Your task to perform on an android device: toggle javascript in the chrome app Image 0: 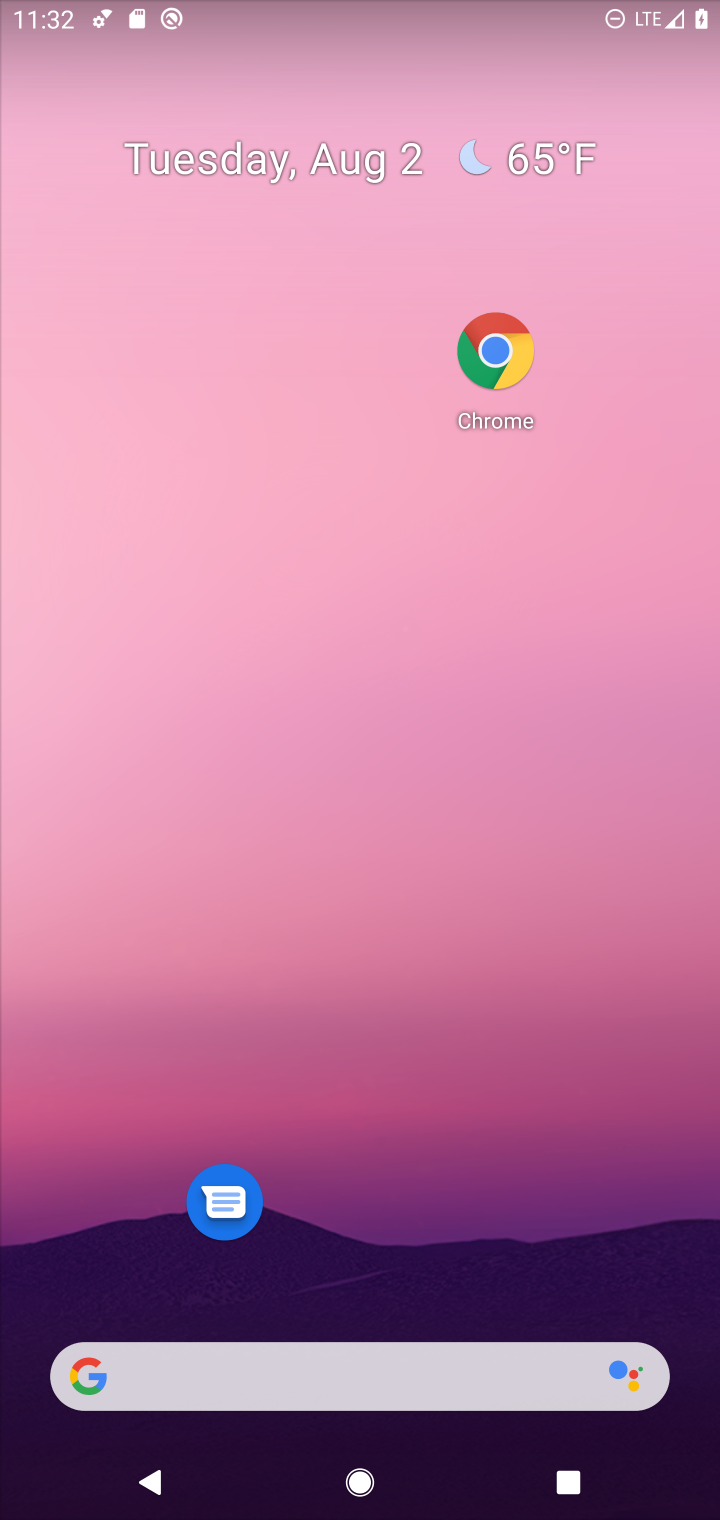
Step 0: click (488, 368)
Your task to perform on an android device: toggle javascript in the chrome app Image 1: 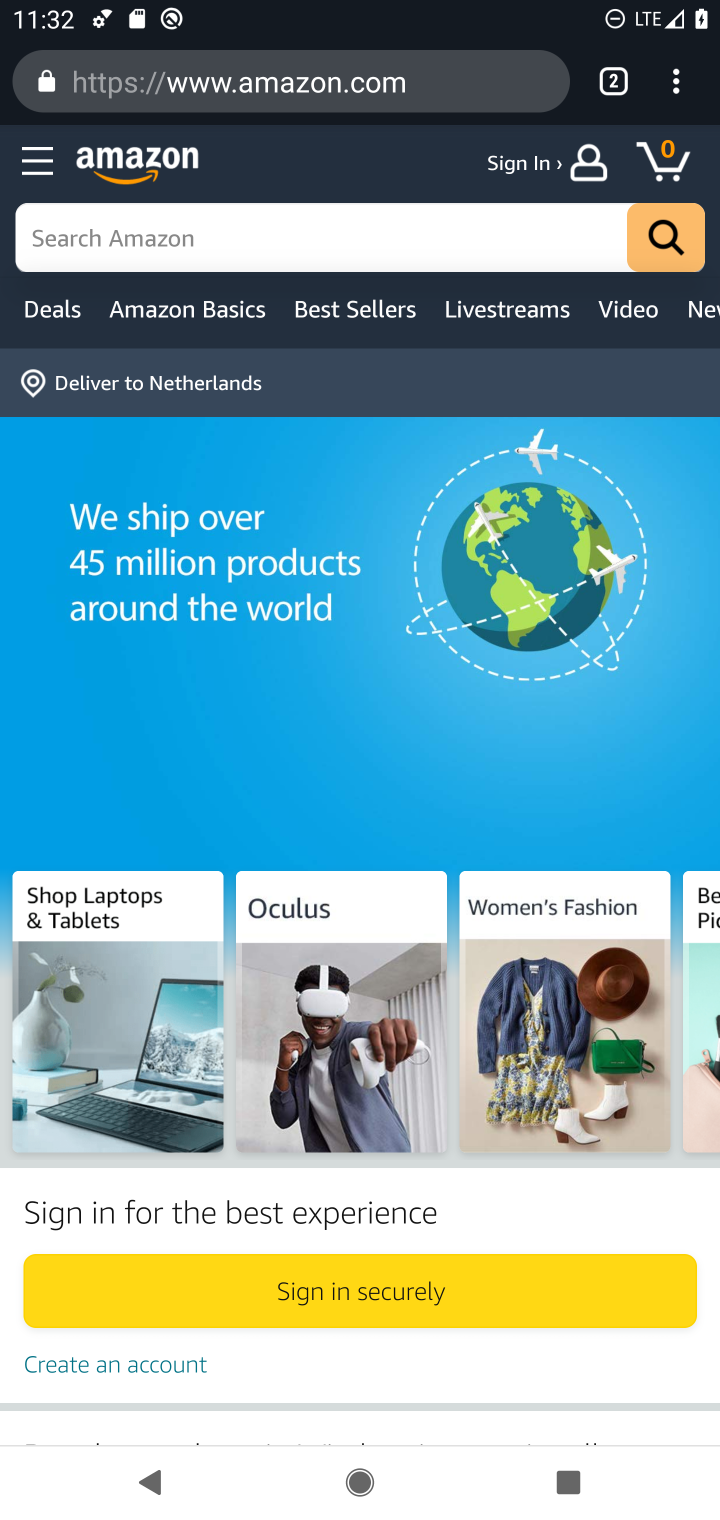
Step 1: drag from (683, 89) to (444, 1006)
Your task to perform on an android device: toggle javascript in the chrome app Image 2: 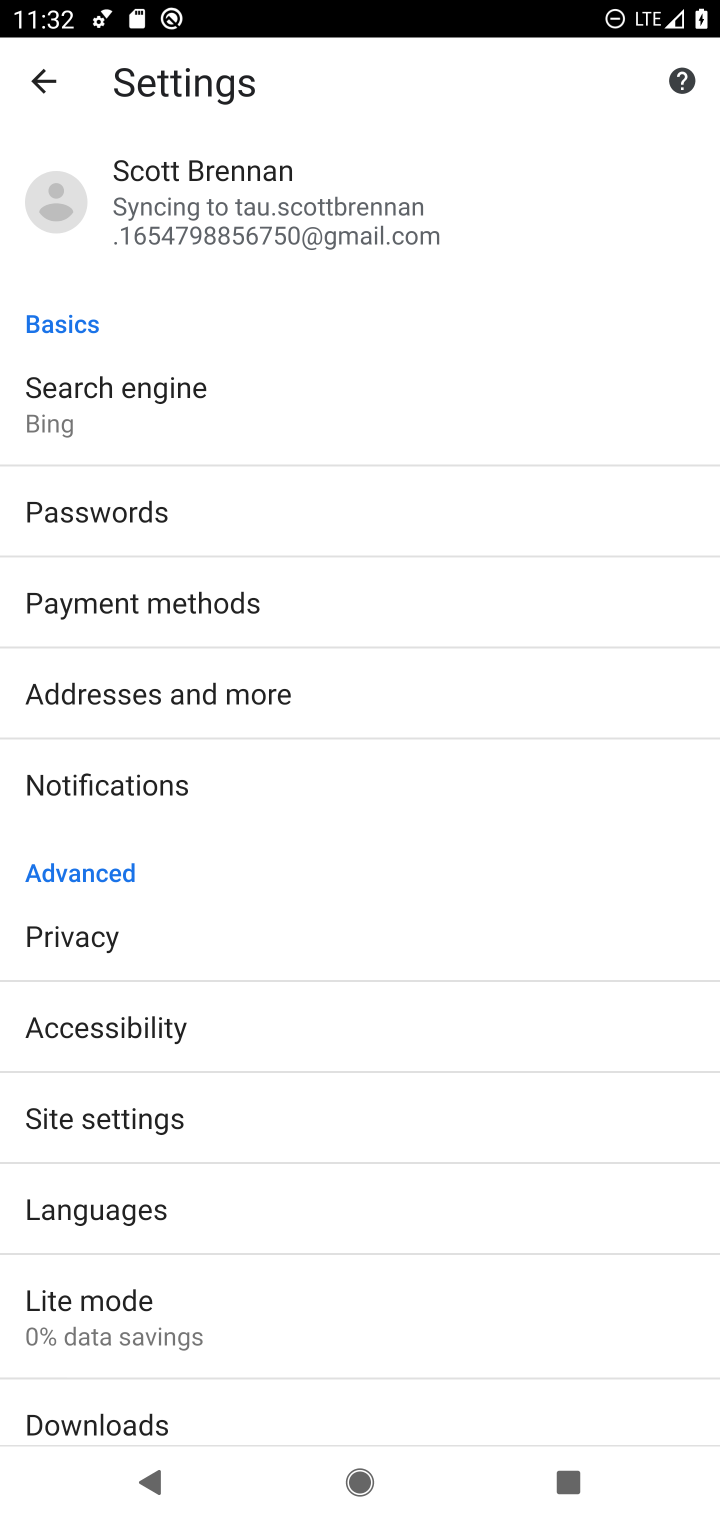
Step 2: click (92, 1108)
Your task to perform on an android device: toggle javascript in the chrome app Image 3: 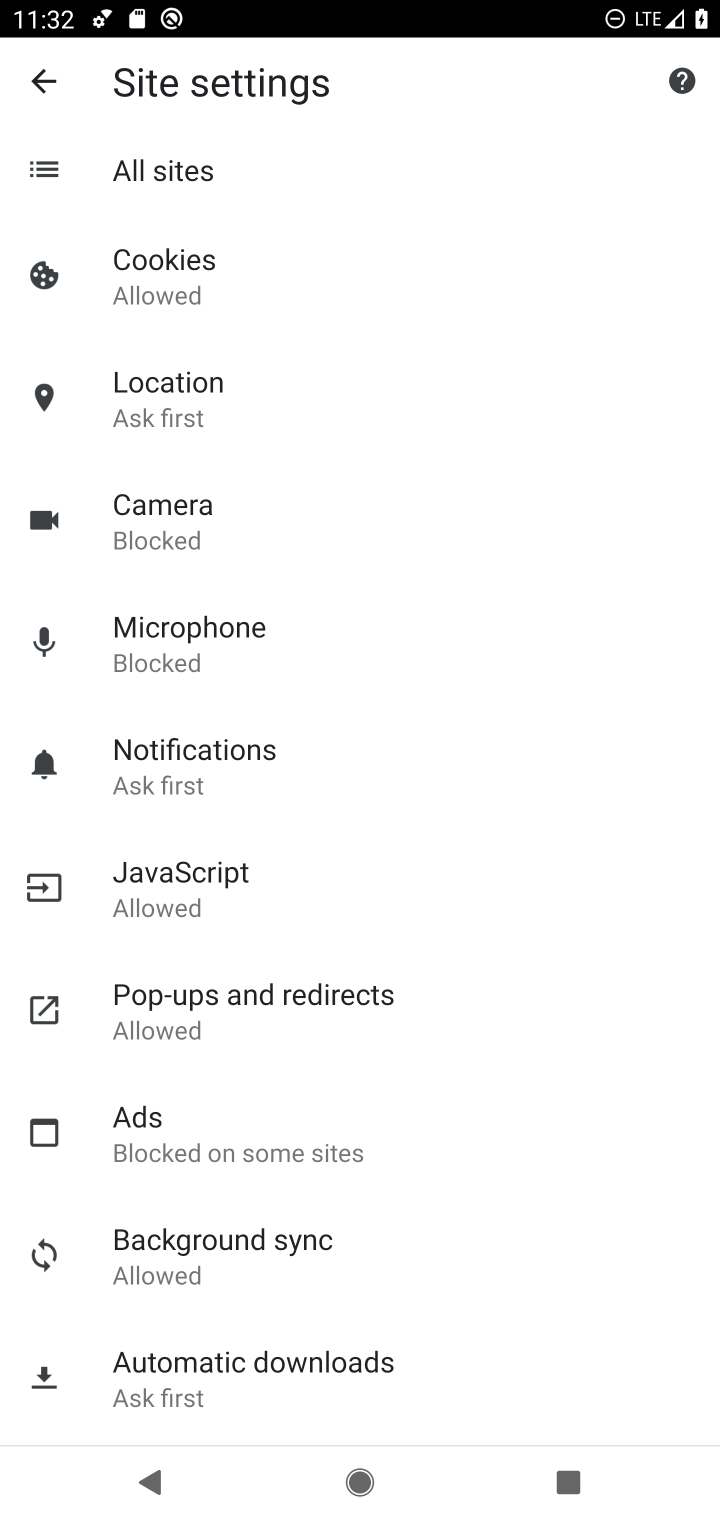
Step 3: click (155, 892)
Your task to perform on an android device: toggle javascript in the chrome app Image 4: 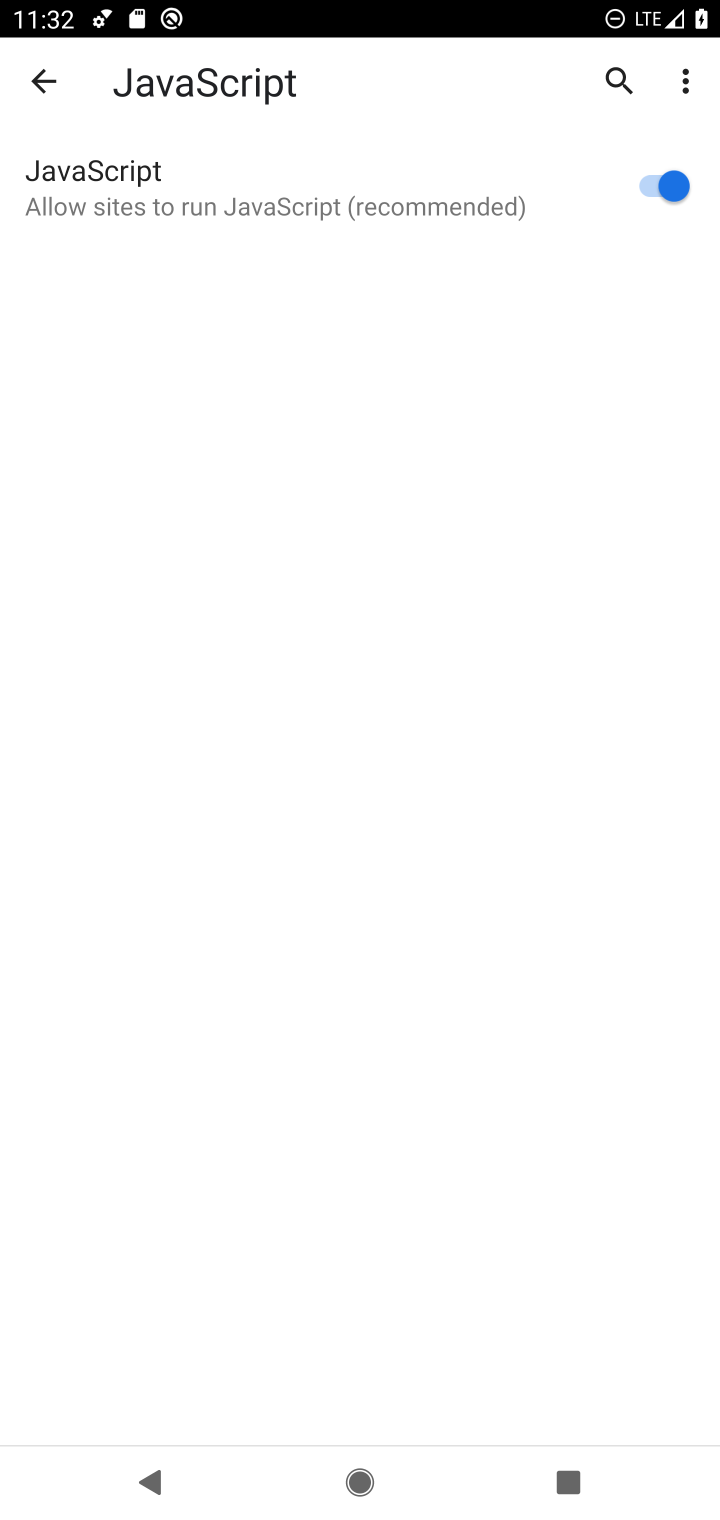
Step 4: click (662, 190)
Your task to perform on an android device: toggle javascript in the chrome app Image 5: 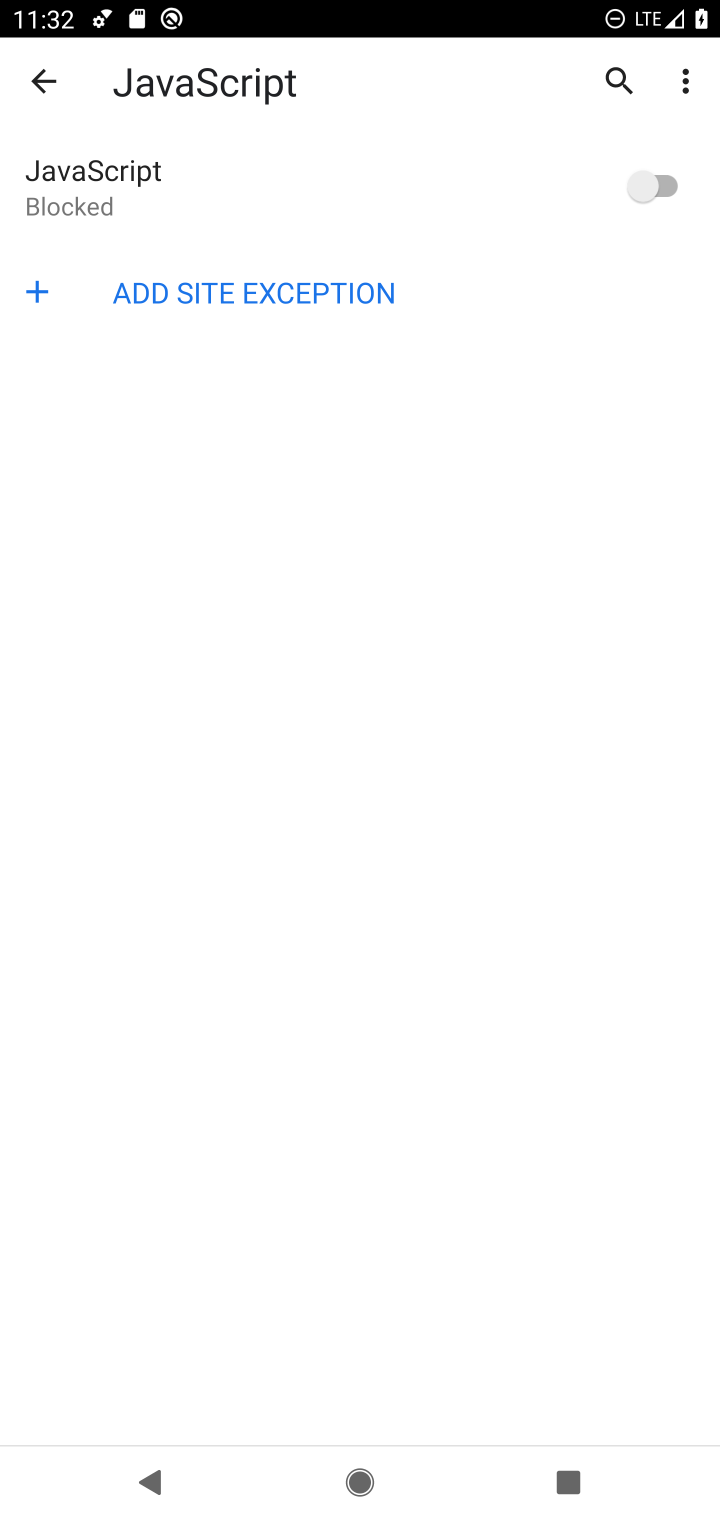
Step 5: task complete